Your task to perform on an android device: turn on the 24-hour format for clock Image 0: 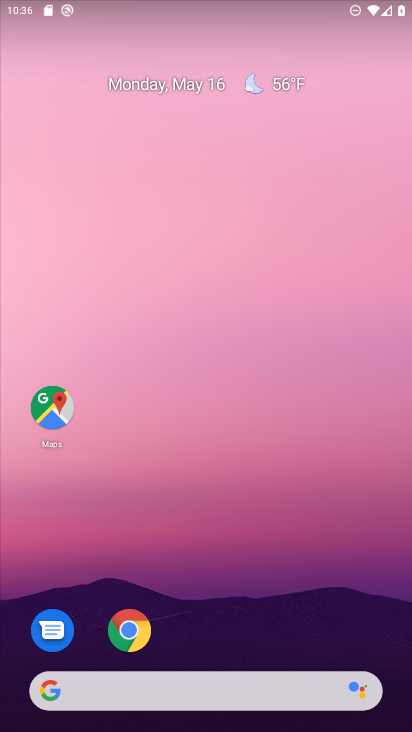
Step 0: drag from (257, 602) to (269, 10)
Your task to perform on an android device: turn on the 24-hour format for clock Image 1: 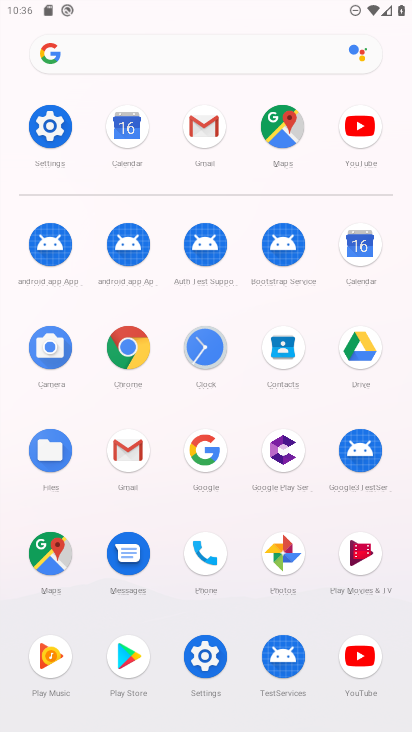
Step 1: click (208, 359)
Your task to perform on an android device: turn on the 24-hour format for clock Image 2: 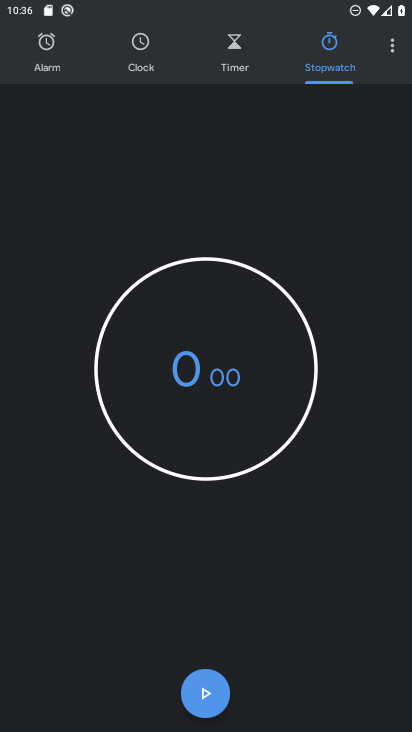
Step 2: press home button
Your task to perform on an android device: turn on the 24-hour format for clock Image 3: 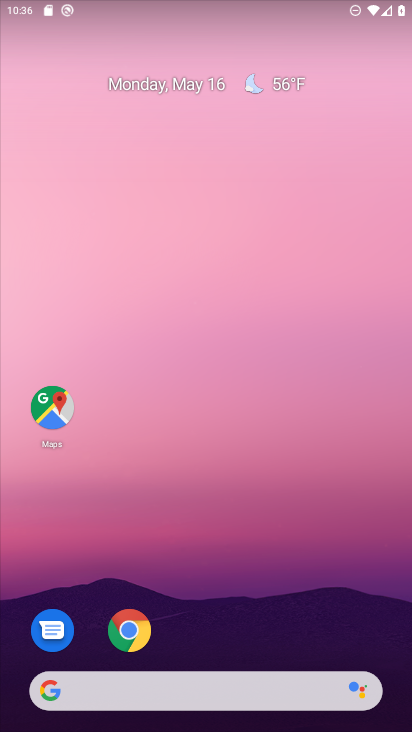
Step 3: drag from (172, 645) to (223, 82)
Your task to perform on an android device: turn on the 24-hour format for clock Image 4: 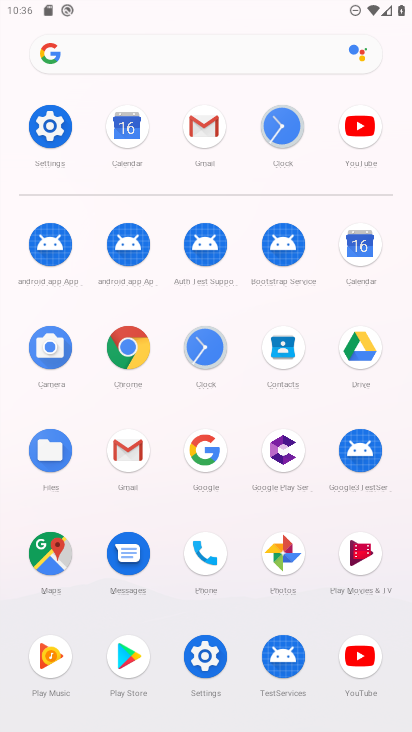
Step 4: click (213, 642)
Your task to perform on an android device: turn on the 24-hour format for clock Image 5: 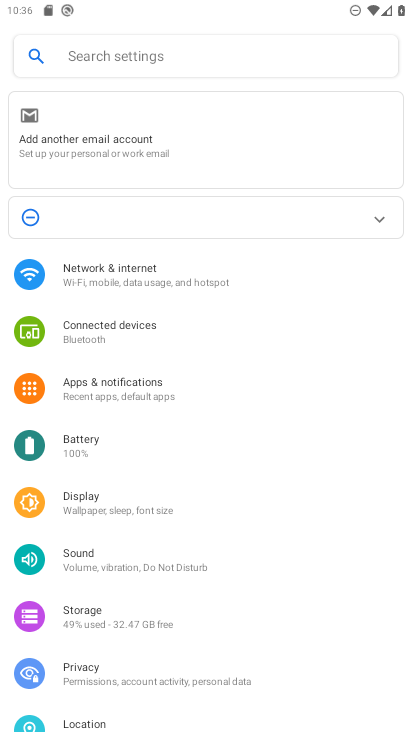
Step 5: drag from (141, 677) to (133, 394)
Your task to perform on an android device: turn on the 24-hour format for clock Image 6: 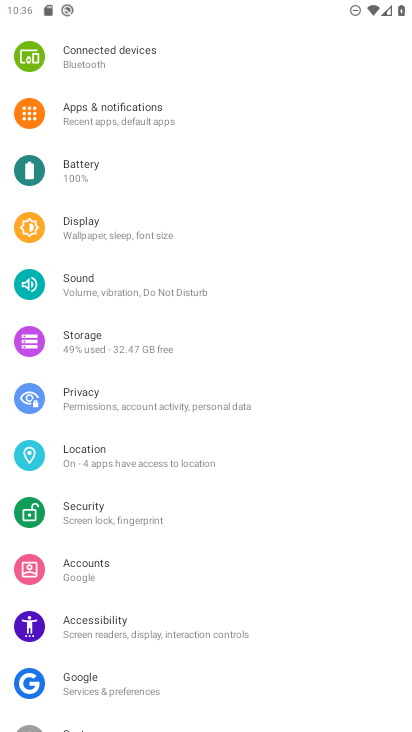
Step 6: drag from (131, 547) to (172, 395)
Your task to perform on an android device: turn on the 24-hour format for clock Image 7: 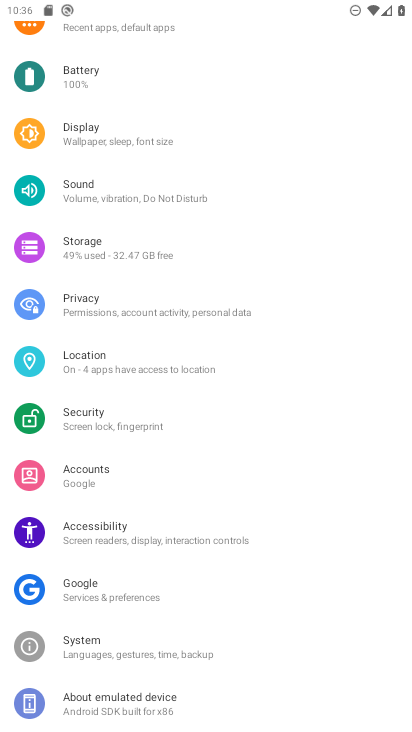
Step 7: click (110, 649)
Your task to perform on an android device: turn on the 24-hour format for clock Image 8: 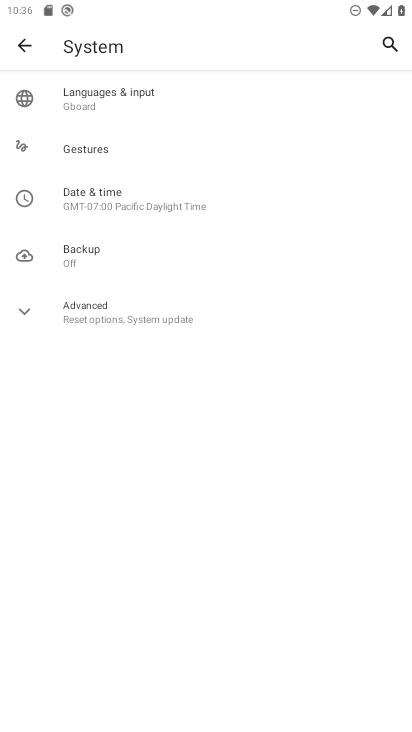
Step 8: click (189, 206)
Your task to perform on an android device: turn on the 24-hour format for clock Image 9: 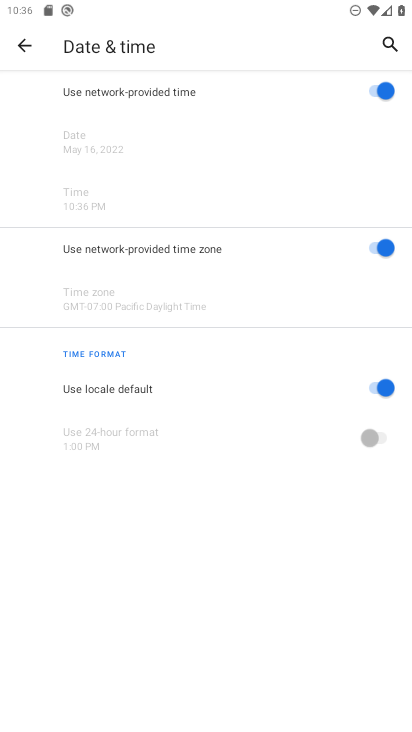
Step 9: click (372, 386)
Your task to perform on an android device: turn on the 24-hour format for clock Image 10: 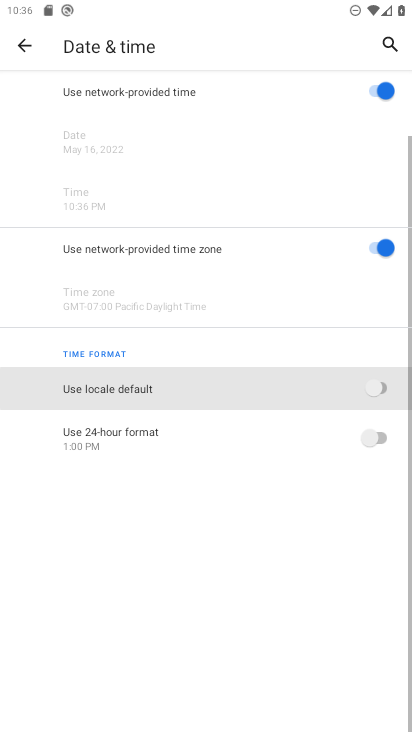
Step 10: click (386, 434)
Your task to perform on an android device: turn on the 24-hour format for clock Image 11: 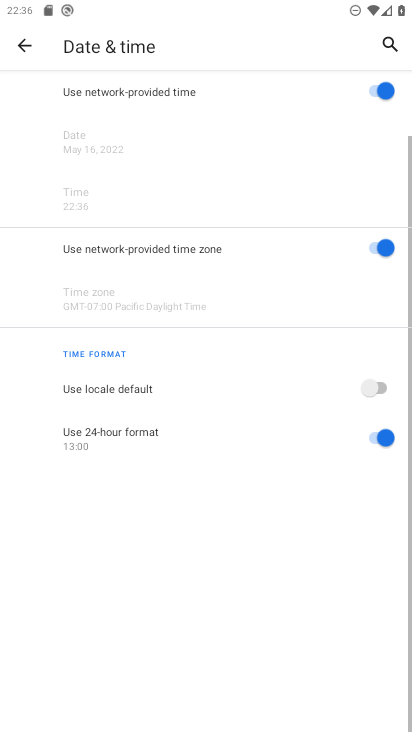
Step 11: task complete